Your task to perform on an android device: Open network settings Image 0: 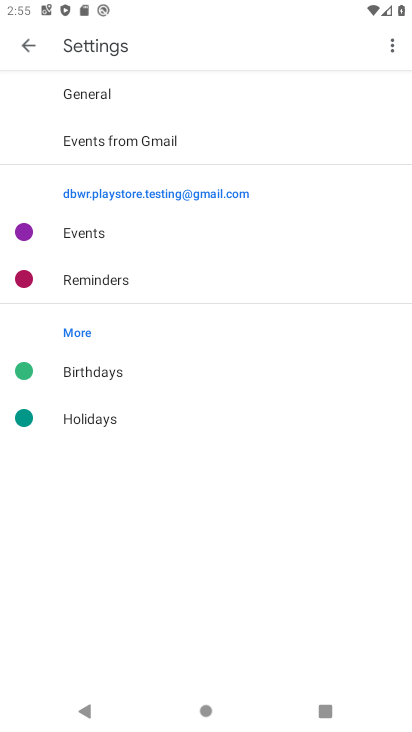
Step 0: press home button
Your task to perform on an android device: Open network settings Image 1: 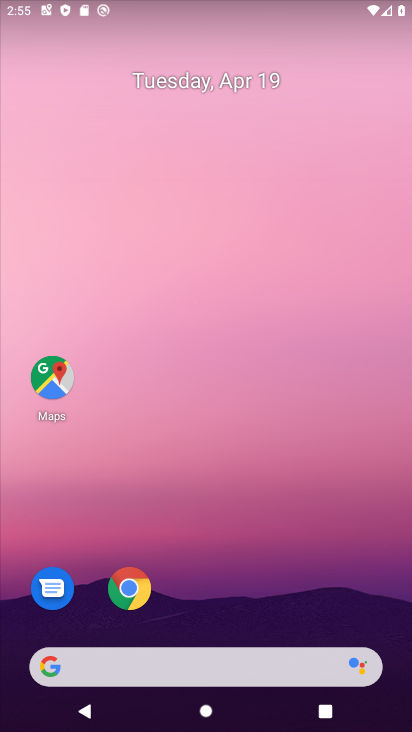
Step 1: drag from (270, 688) to (277, 149)
Your task to perform on an android device: Open network settings Image 2: 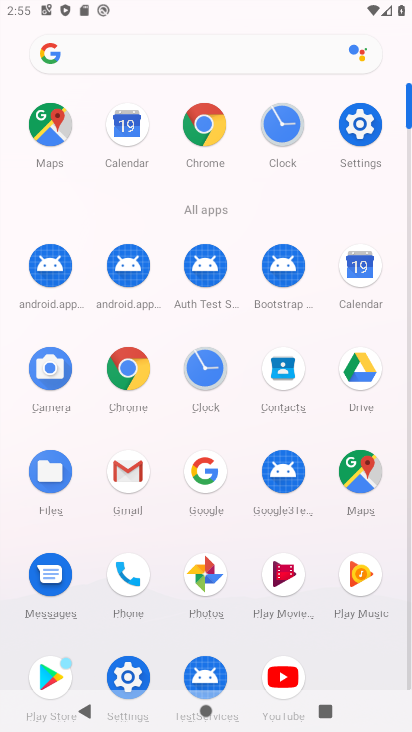
Step 2: click (149, 651)
Your task to perform on an android device: Open network settings Image 3: 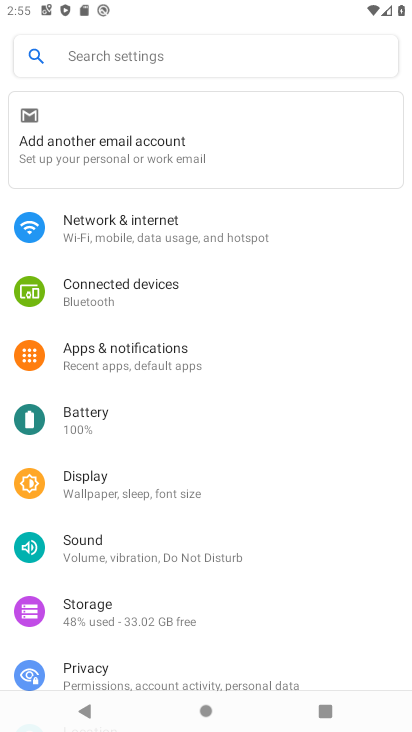
Step 3: click (179, 216)
Your task to perform on an android device: Open network settings Image 4: 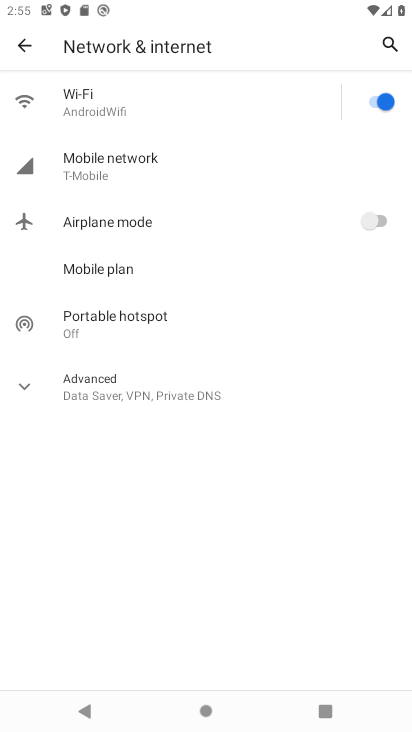
Step 4: task complete